Your task to perform on an android device: remove spam from my inbox in the gmail app Image 0: 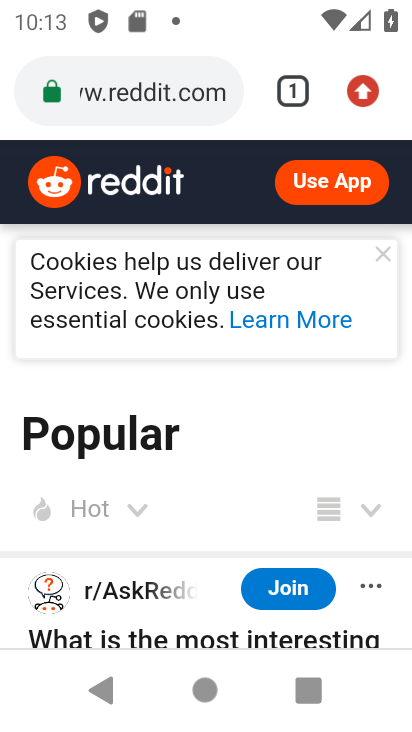
Step 0: press home button
Your task to perform on an android device: remove spam from my inbox in the gmail app Image 1: 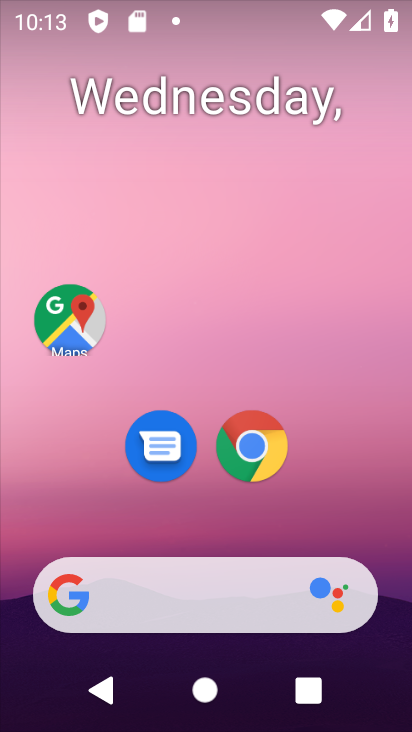
Step 1: drag from (75, 539) to (170, 156)
Your task to perform on an android device: remove spam from my inbox in the gmail app Image 2: 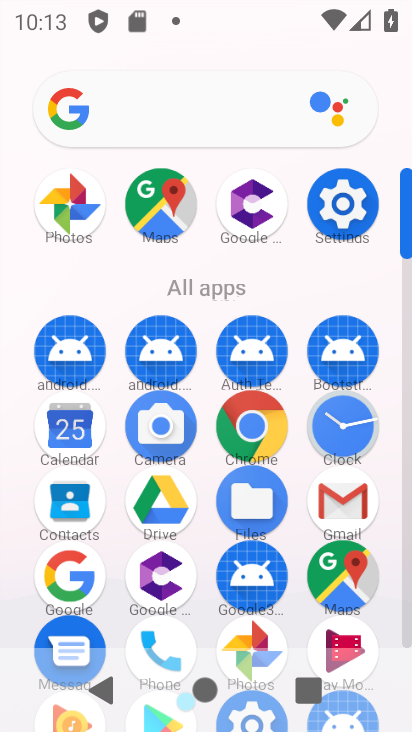
Step 2: click (341, 499)
Your task to perform on an android device: remove spam from my inbox in the gmail app Image 3: 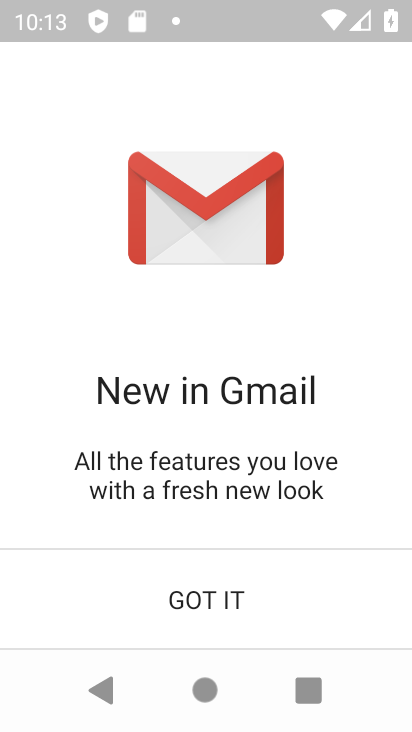
Step 3: click (179, 592)
Your task to perform on an android device: remove spam from my inbox in the gmail app Image 4: 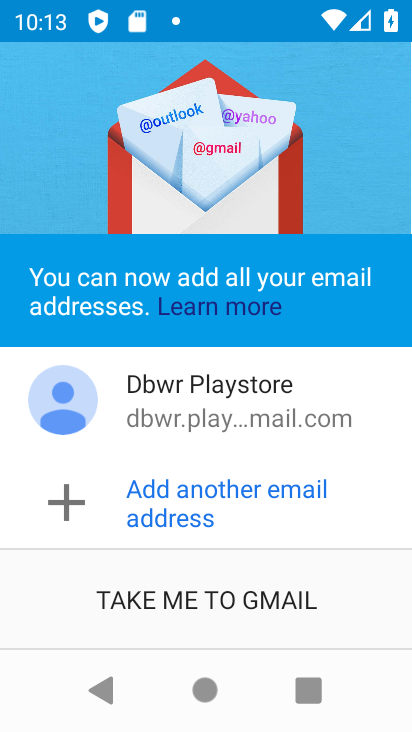
Step 4: click (258, 618)
Your task to perform on an android device: remove spam from my inbox in the gmail app Image 5: 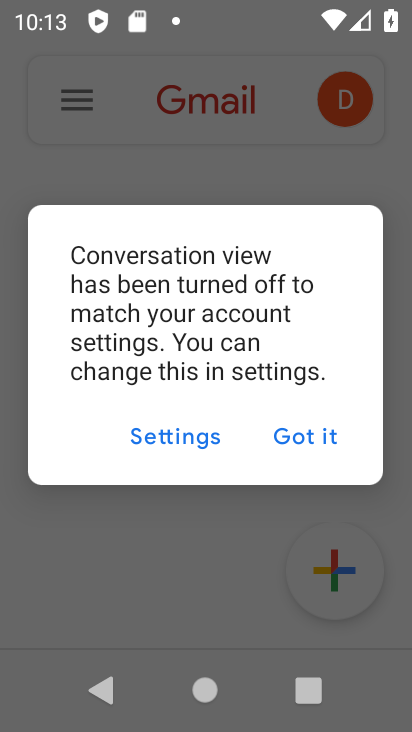
Step 5: click (311, 447)
Your task to perform on an android device: remove spam from my inbox in the gmail app Image 6: 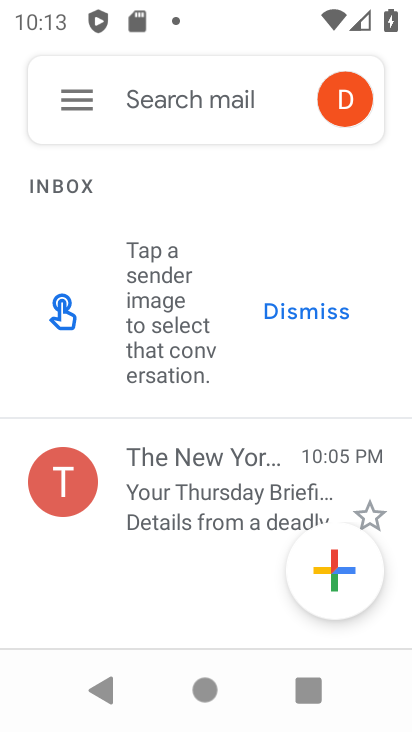
Step 6: click (85, 96)
Your task to perform on an android device: remove spam from my inbox in the gmail app Image 7: 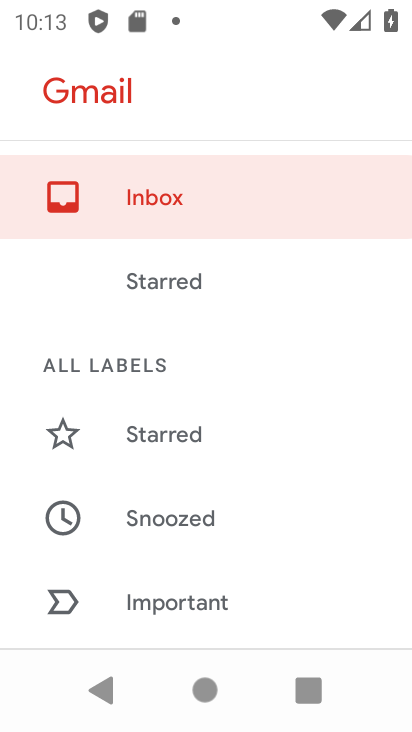
Step 7: drag from (208, 593) to (336, 210)
Your task to perform on an android device: remove spam from my inbox in the gmail app Image 8: 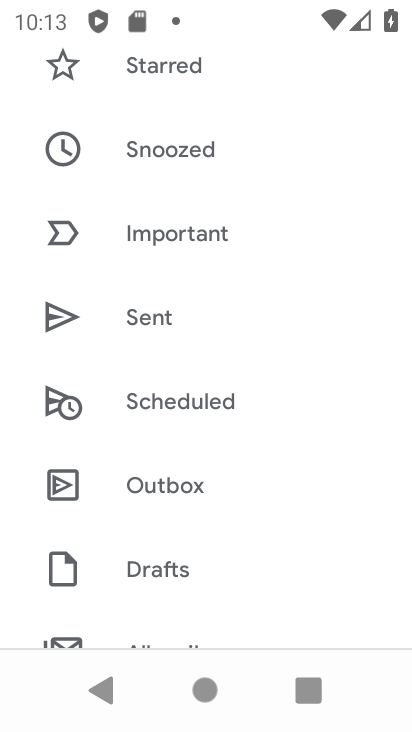
Step 8: drag from (218, 593) to (328, 222)
Your task to perform on an android device: remove spam from my inbox in the gmail app Image 9: 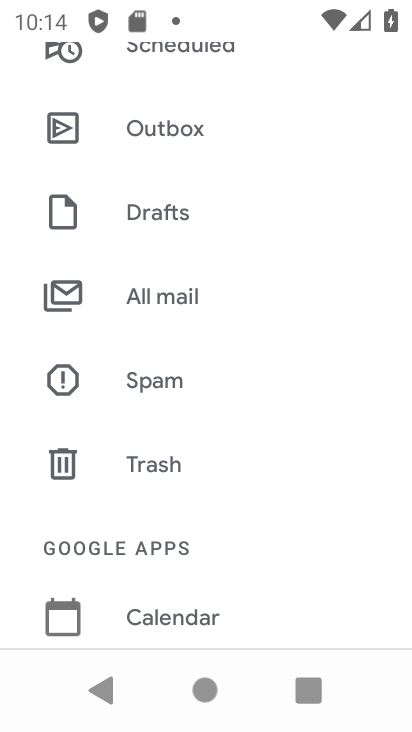
Step 9: click (208, 398)
Your task to perform on an android device: remove spam from my inbox in the gmail app Image 10: 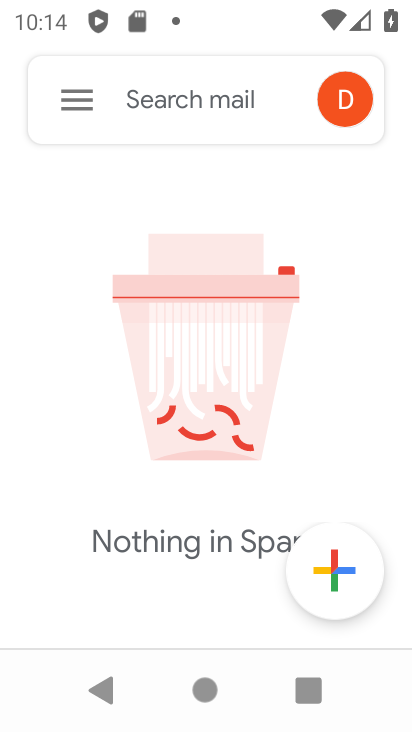
Step 10: task complete